Your task to perform on an android device: Toggle the flashlight Image 0: 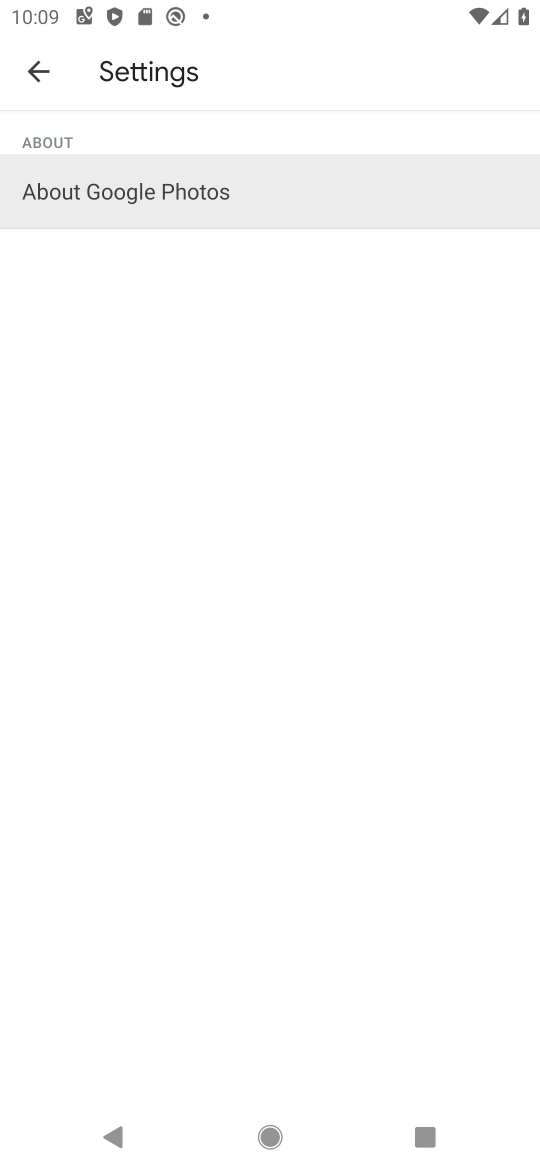
Step 0: task impossible